Your task to perform on an android device: Turn on the flashlight Image 0: 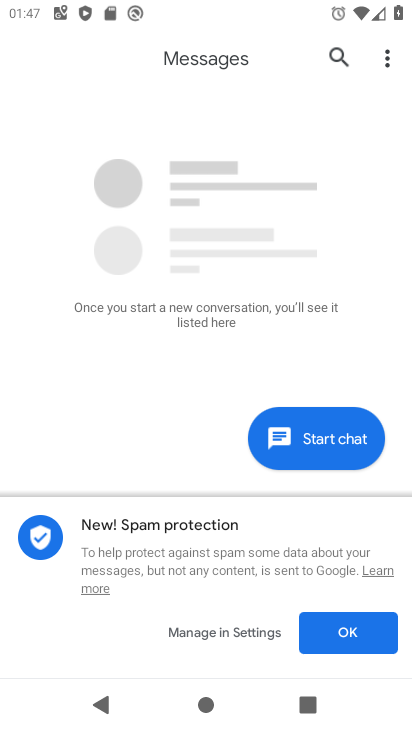
Step 0: drag from (259, 0) to (204, 420)
Your task to perform on an android device: Turn on the flashlight Image 1: 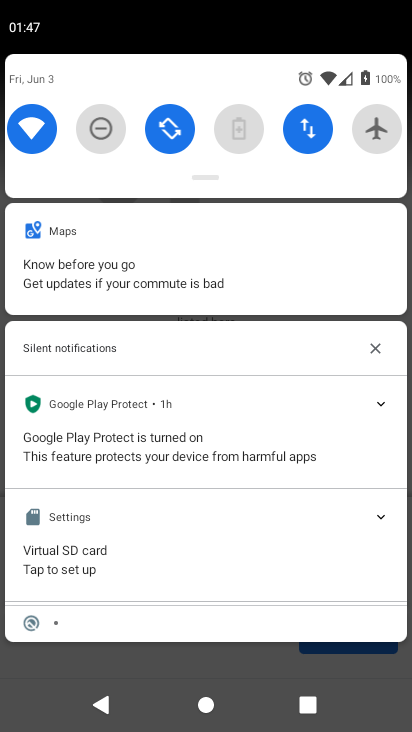
Step 1: task complete